Your task to perform on an android device: turn on bluetooth scan Image 0: 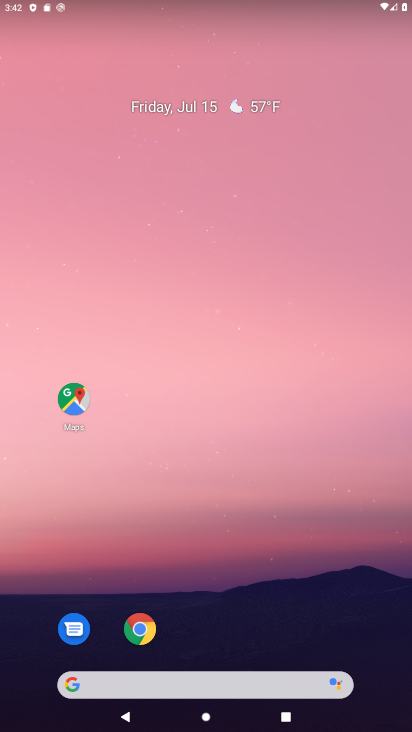
Step 0: press home button
Your task to perform on an android device: turn on bluetooth scan Image 1: 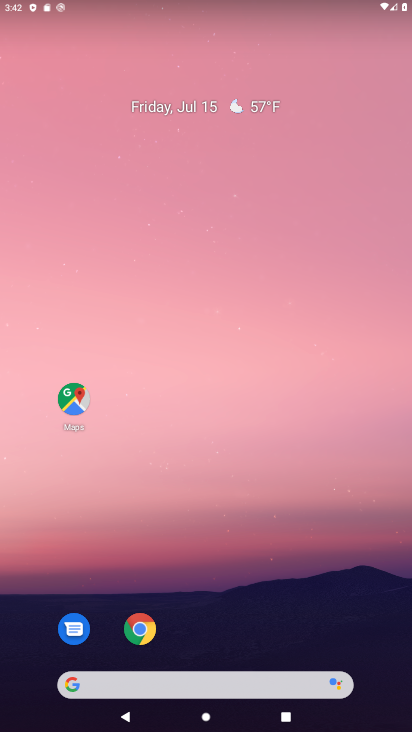
Step 1: drag from (249, 572) to (221, 4)
Your task to perform on an android device: turn on bluetooth scan Image 2: 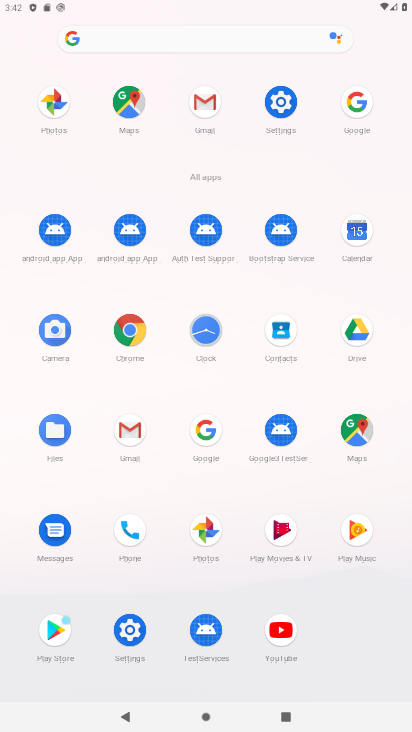
Step 2: click (273, 103)
Your task to perform on an android device: turn on bluetooth scan Image 3: 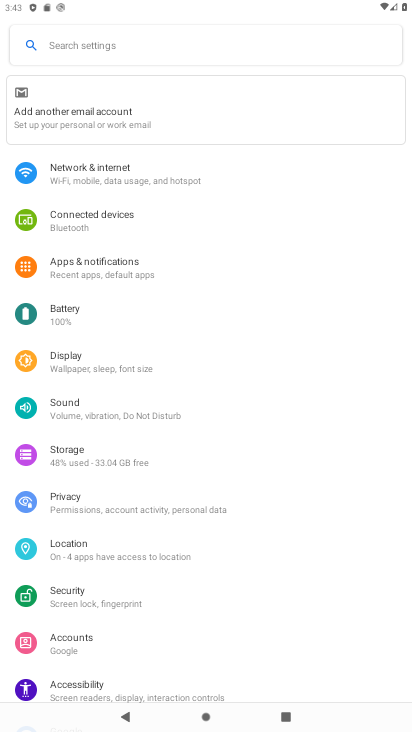
Step 3: click (93, 547)
Your task to perform on an android device: turn on bluetooth scan Image 4: 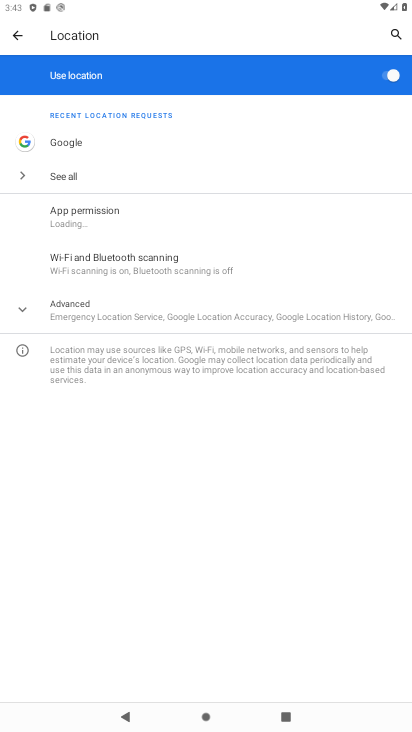
Step 4: click (85, 262)
Your task to perform on an android device: turn on bluetooth scan Image 5: 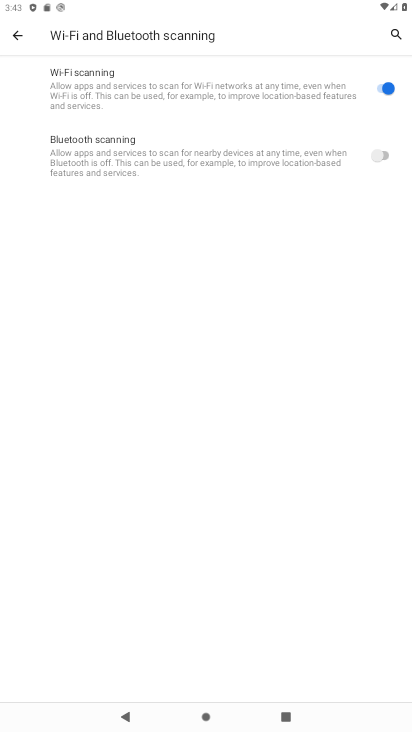
Step 5: click (375, 154)
Your task to perform on an android device: turn on bluetooth scan Image 6: 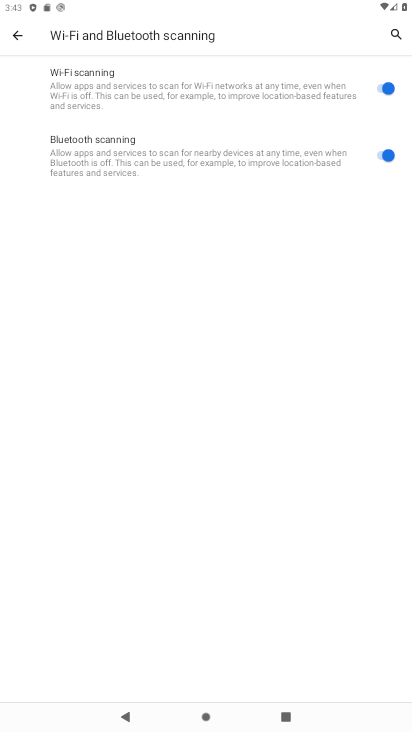
Step 6: task complete